Your task to perform on an android device: turn on translation in the chrome app Image 0: 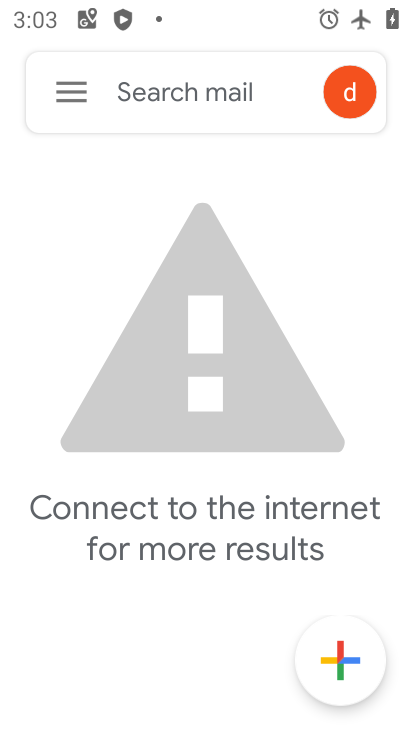
Step 0: press home button
Your task to perform on an android device: turn on translation in the chrome app Image 1: 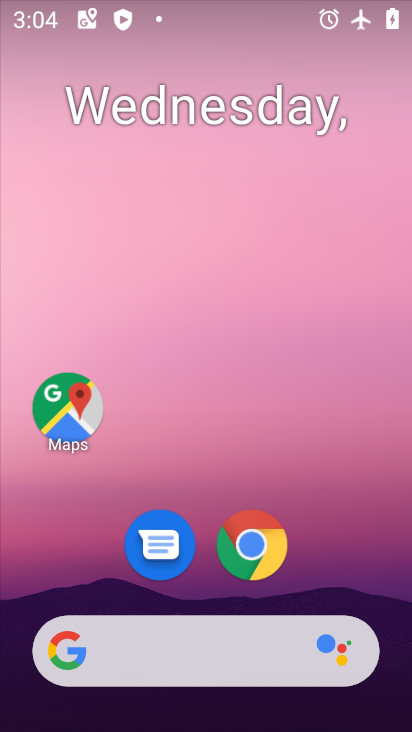
Step 1: click (251, 543)
Your task to perform on an android device: turn on translation in the chrome app Image 2: 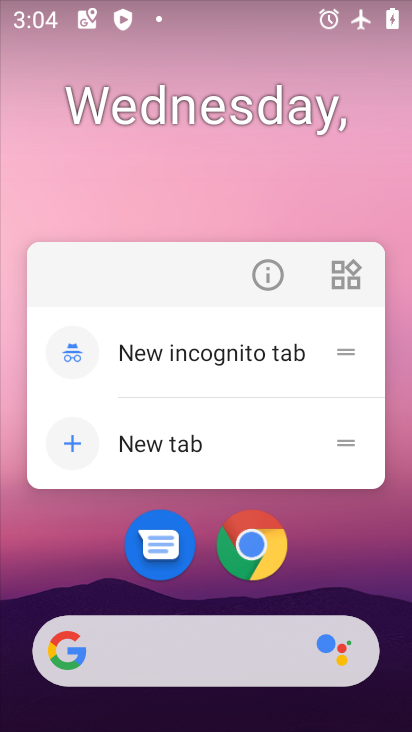
Step 2: click (254, 548)
Your task to perform on an android device: turn on translation in the chrome app Image 3: 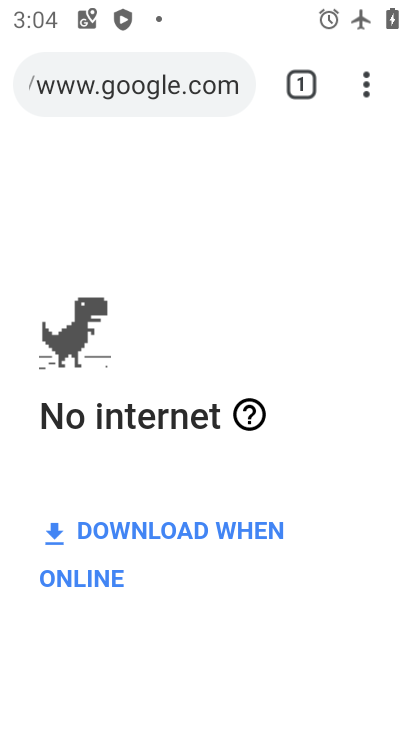
Step 3: click (374, 85)
Your task to perform on an android device: turn on translation in the chrome app Image 4: 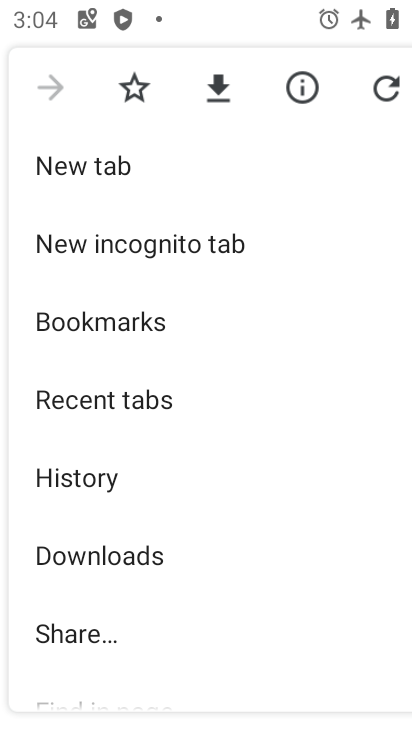
Step 4: drag from (190, 573) to (241, 160)
Your task to perform on an android device: turn on translation in the chrome app Image 5: 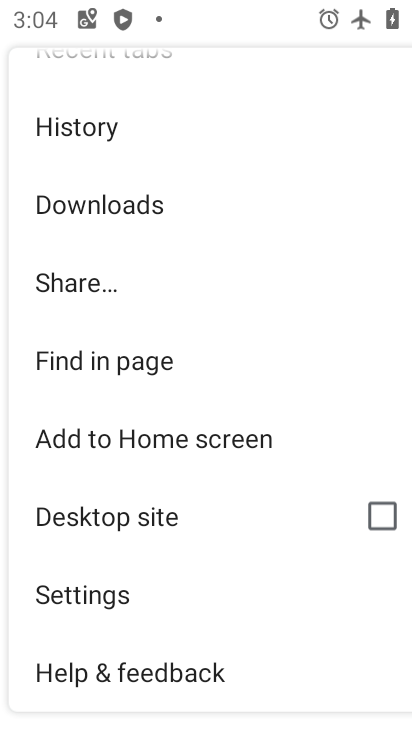
Step 5: click (100, 590)
Your task to perform on an android device: turn on translation in the chrome app Image 6: 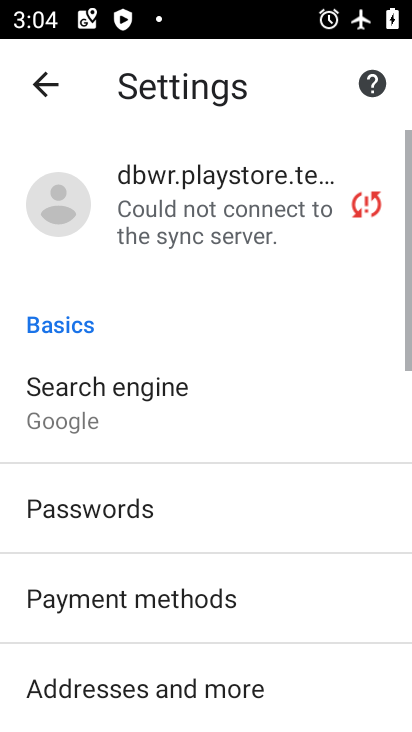
Step 6: drag from (249, 524) to (324, 186)
Your task to perform on an android device: turn on translation in the chrome app Image 7: 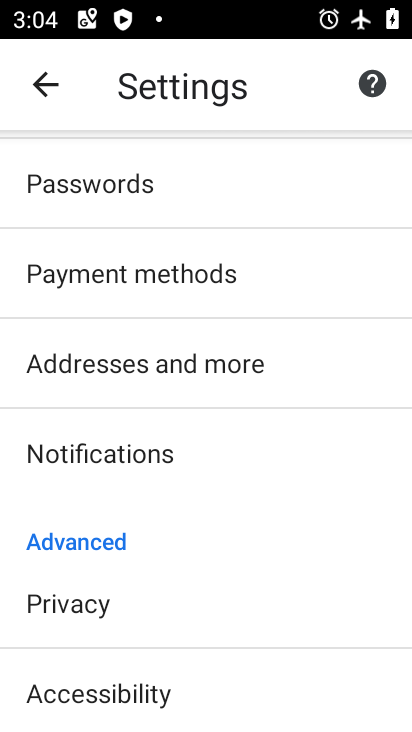
Step 7: drag from (235, 480) to (286, 206)
Your task to perform on an android device: turn on translation in the chrome app Image 8: 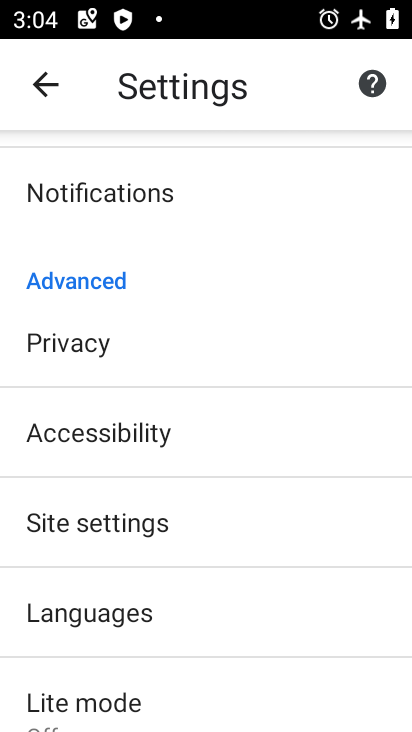
Step 8: click (116, 604)
Your task to perform on an android device: turn on translation in the chrome app Image 9: 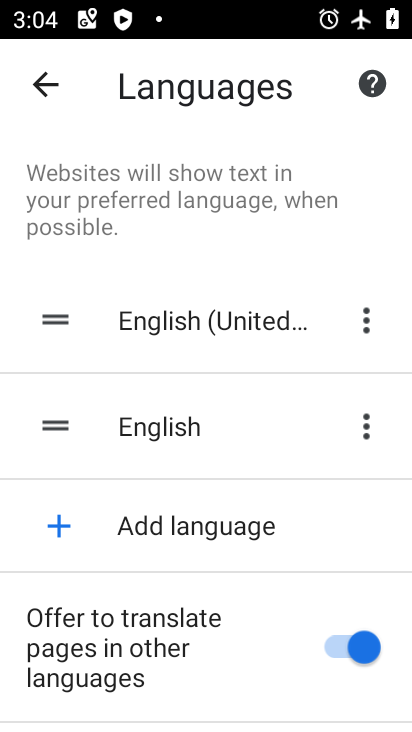
Step 9: task complete